Your task to perform on an android device: open chrome privacy settings Image 0: 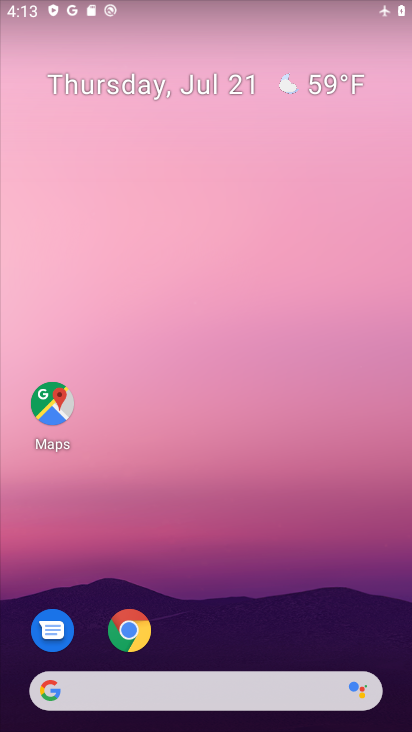
Step 0: drag from (241, 618) to (181, 112)
Your task to perform on an android device: open chrome privacy settings Image 1: 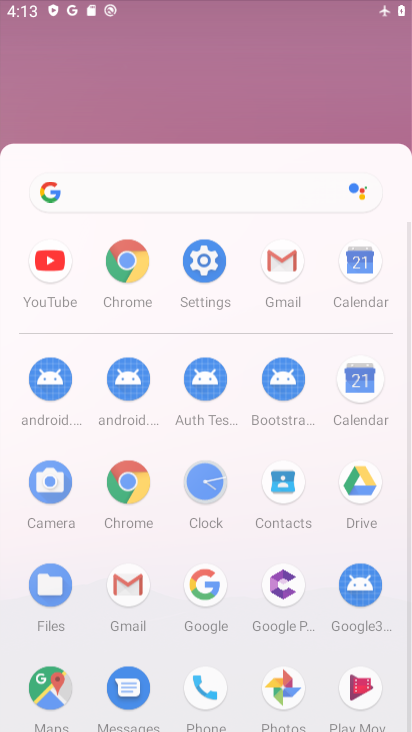
Step 1: drag from (217, 423) to (217, 124)
Your task to perform on an android device: open chrome privacy settings Image 2: 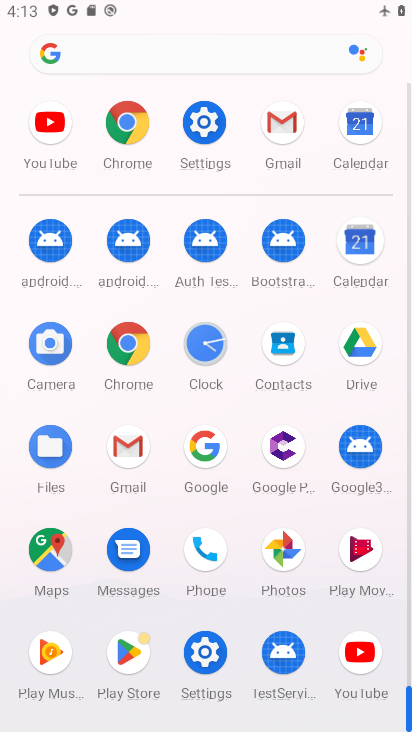
Step 2: click (127, 118)
Your task to perform on an android device: open chrome privacy settings Image 3: 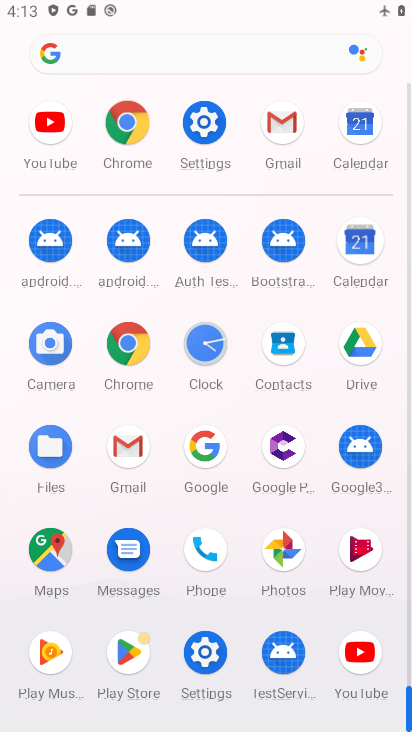
Step 3: click (131, 120)
Your task to perform on an android device: open chrome privacy settings Image 4: 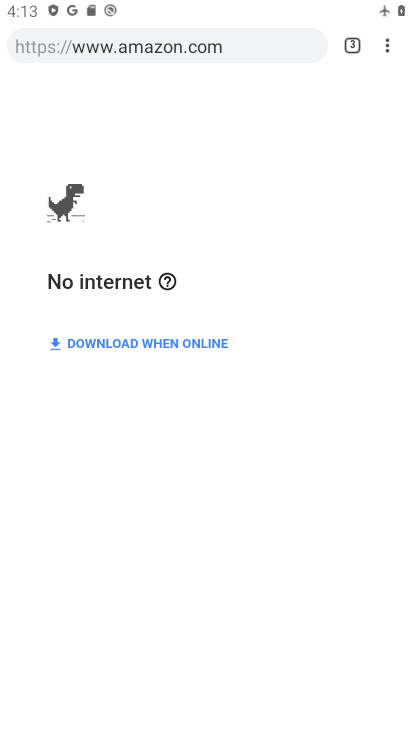
Step 4: drag from (388, 46) to (221, 505)
Your task to perform on an android device: open chrome privacy settings Image 5: 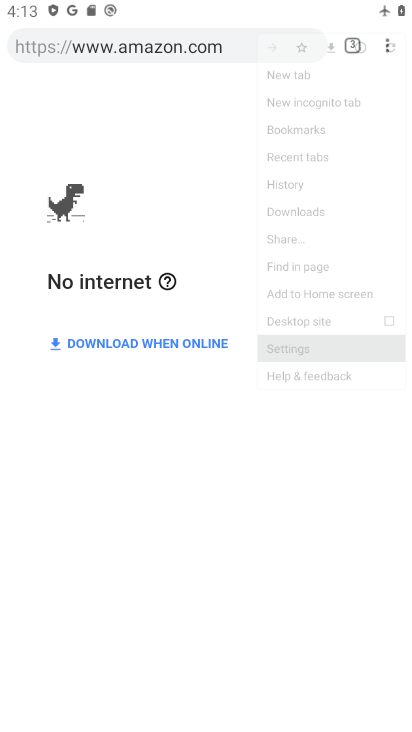
Step 5: click (221, 503)
Your task to perform on an android device: open chrome privacy settings Image 6: 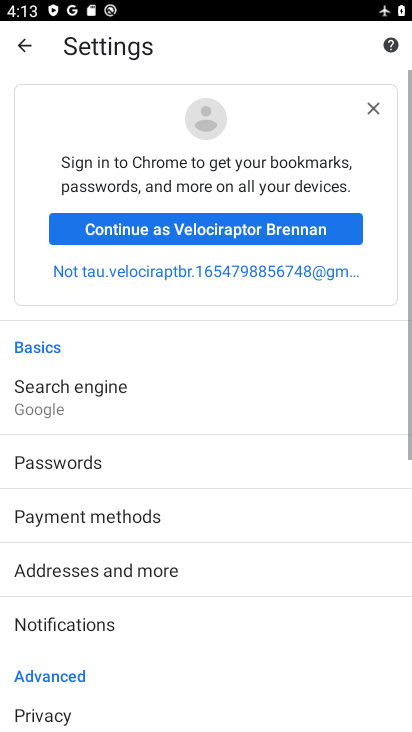
Step 6: drag from (135, 545) to (149, 143)
Your task to perform on an android device: open chrome privacy settings Image 7: 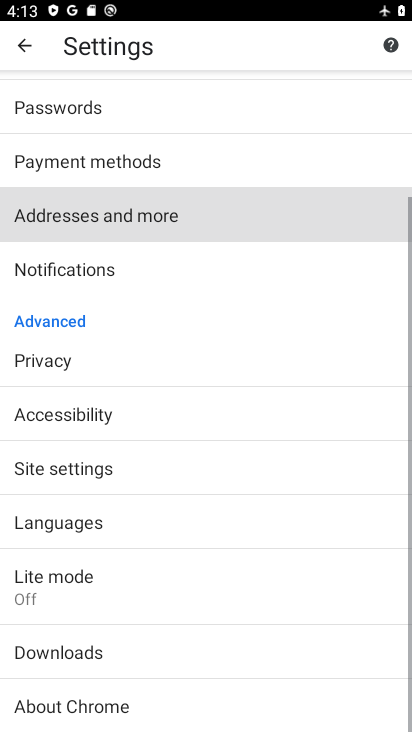
Step 7: drag from (157, 385) to (157, 221)
Your task to perform on an android device: open chrome privacy settings Image 8: 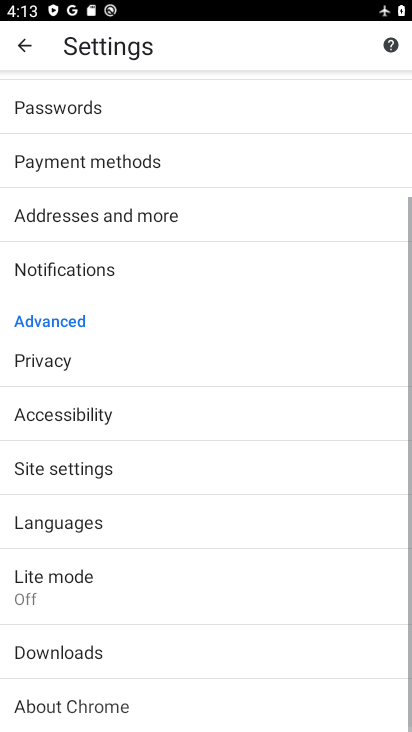
Step 8: drag from (95, 454) to (128, 220)
Your task to perform on an android device: open chrome privacy settings Image 9: 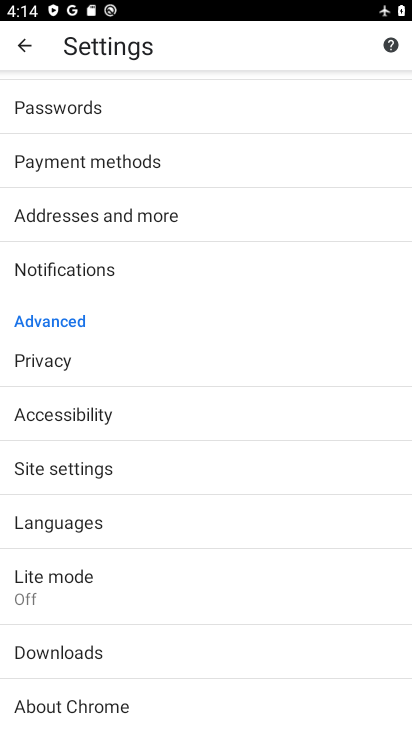
Step 9: click (48, 359)
Your task to perform on an android device: open chrome privacy settings Image 10: 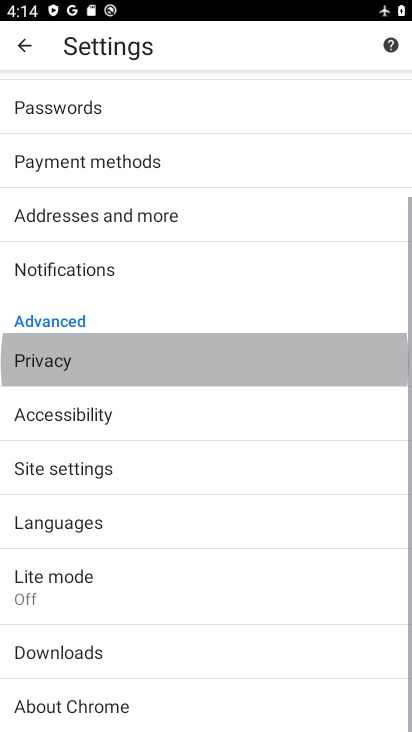
Step 10: click (49, 360)
Your task to perform on an android device: open chrome privacy settings Image 11: 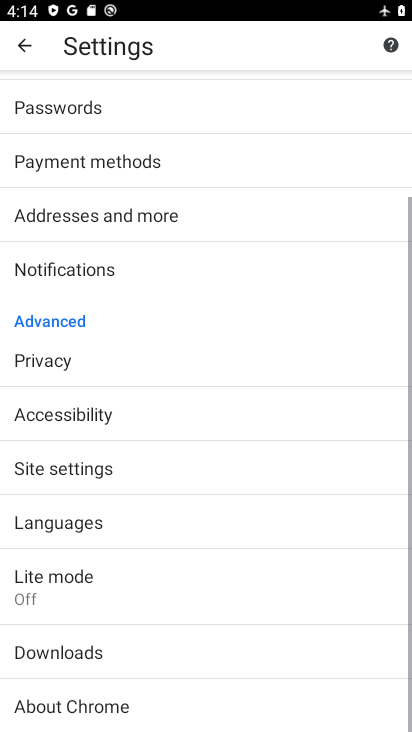
Step 11: click (51, 362)
Your task to perform on an android device: open chrome privacy settings Image 12: 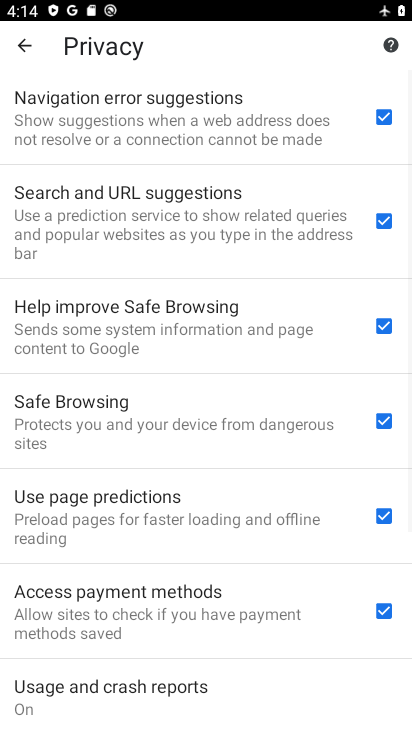
Step 12: task complete